Your task to perform on an android device: turn on improve location accuracy Image 0: 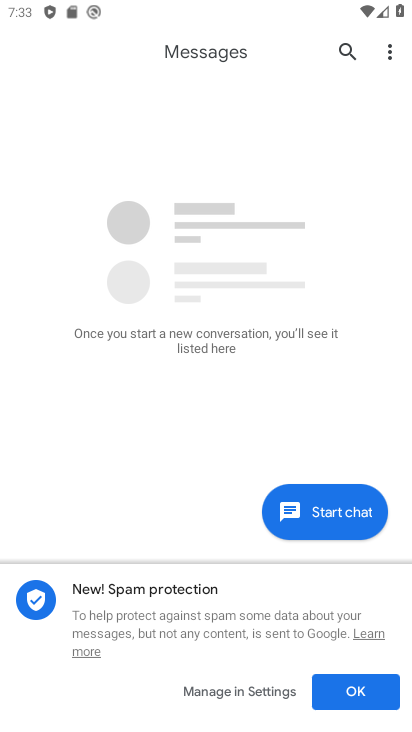
Step 0: press home button
Your task to perform on an android device: turn on improve location accuracy Image 1: 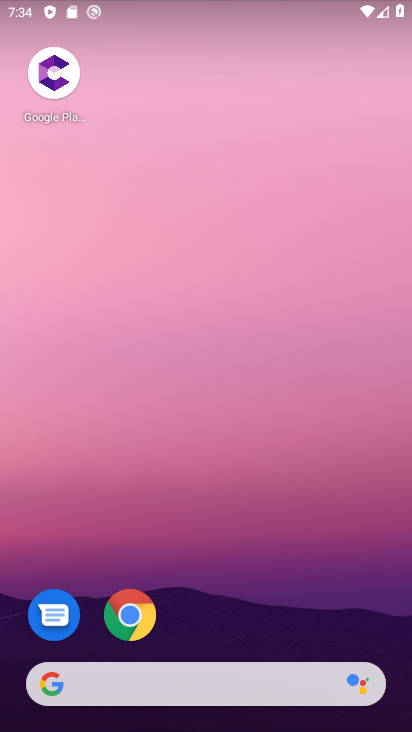
Step 1: drag from (237, 615) to (361, 12)
Your task to perform on an android device: turn on improve location accuracy Image 2: 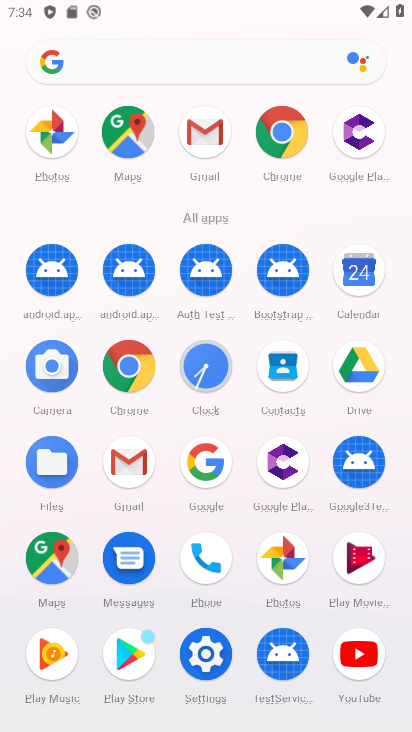
Step 2: click (206, 649)
Your task to perform on an android device: turn on improve location accuracy Image 3: 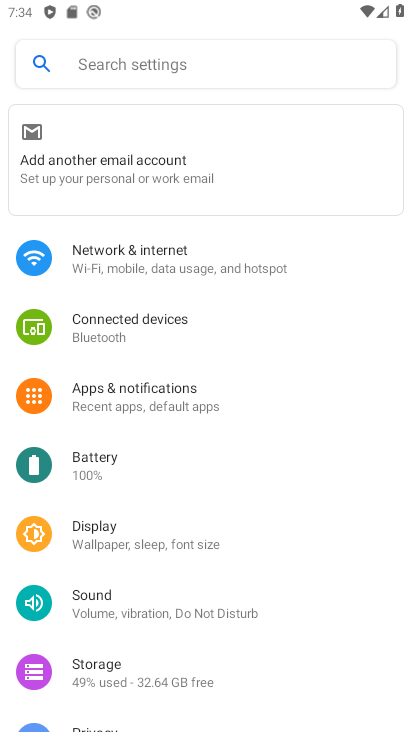
Step 3: drag from (156, 655) to (239, 331)
Your task to perform on an android device: turn on improve location accuracy Image 4: 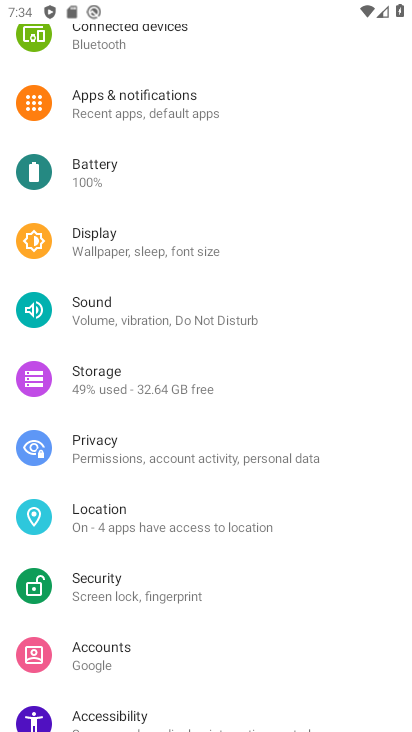
Step 4: click (165, 521)
Your task to perform on an android device: turn on improve location accuracy Image 5: 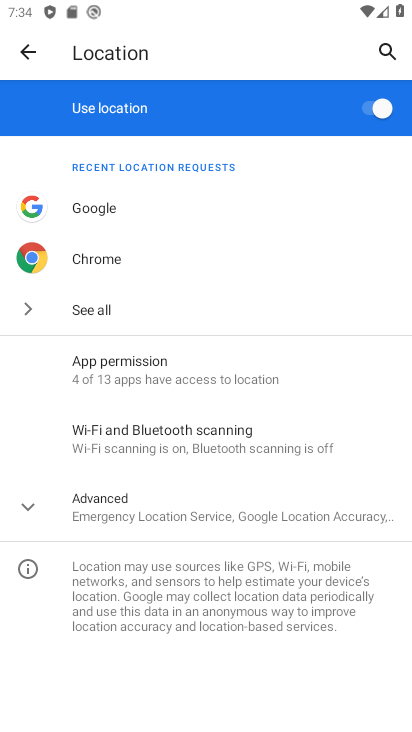
Step 5: click (148, 510)
Your task to perform on an android device: turn on improve location accuracy Image 6: 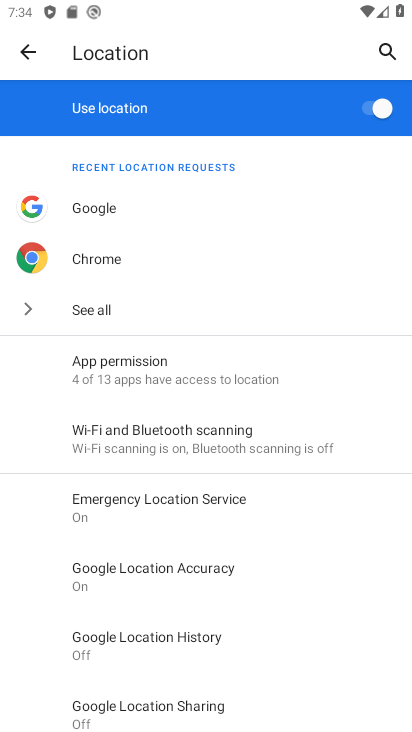
Step 6: drag from (152, 616) to (189, 535)
Your task to perform on an android device: turn on improve location accuracy Image 7: 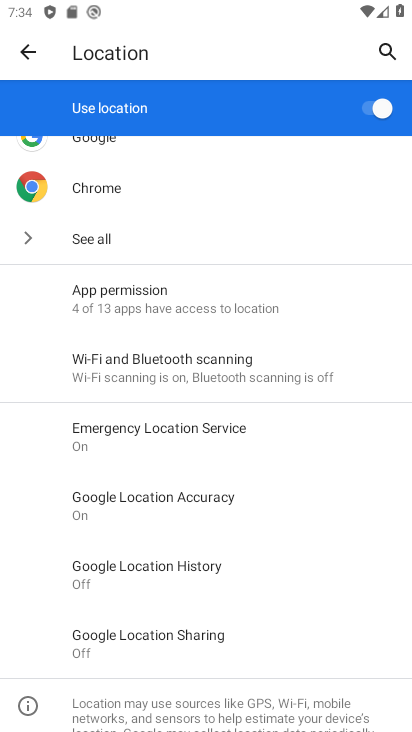
Step 7: click (206, 514)
Your task to perform on an android device: turn on improve location accuracy Image 8: 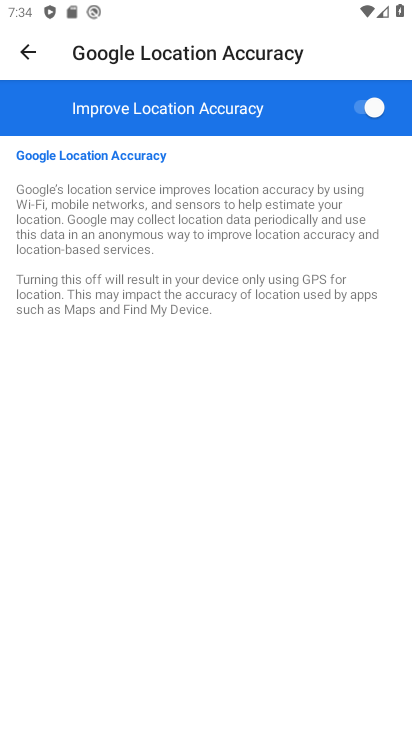
Step 8: task complete